Your task to perform on an android device: Open Google Maps and go to "Timeline" Image 0: 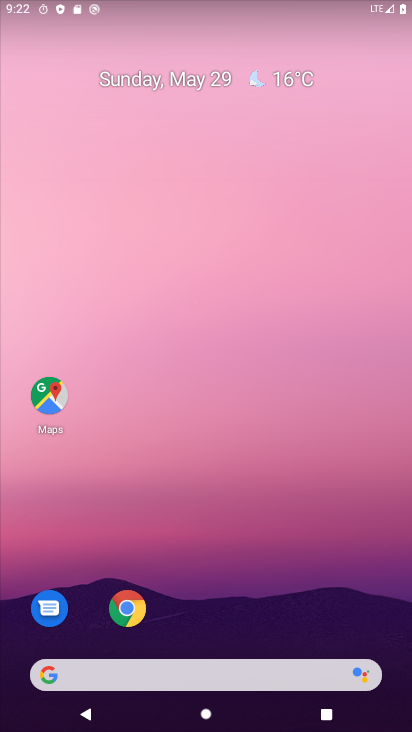
Step 0: click (46, 400)
Your task to perform on an android device: Open Google Maps and go to "Timeline" Image 1: 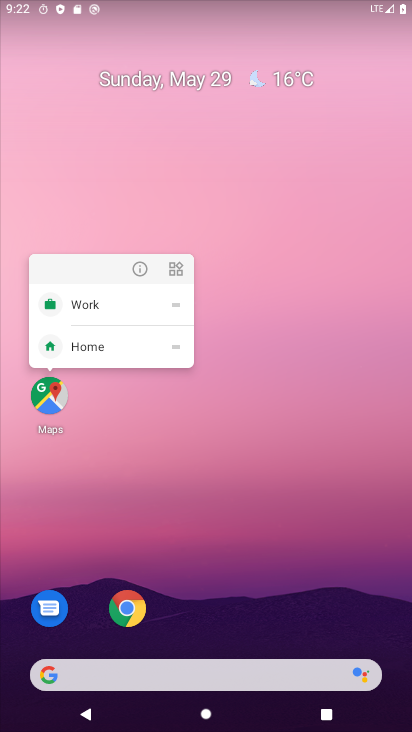
Step 1: click (49, 405)
Your task to perform on an android device: Open Google Maps and go to "Timeline" Image 2: 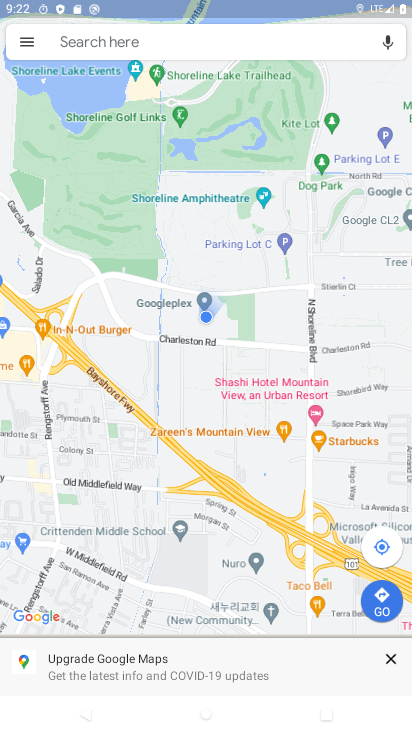
Step 2: click (29, 43)
Your task to perform on an android device: Open Google Maps and go to "Timeline" Image 3: 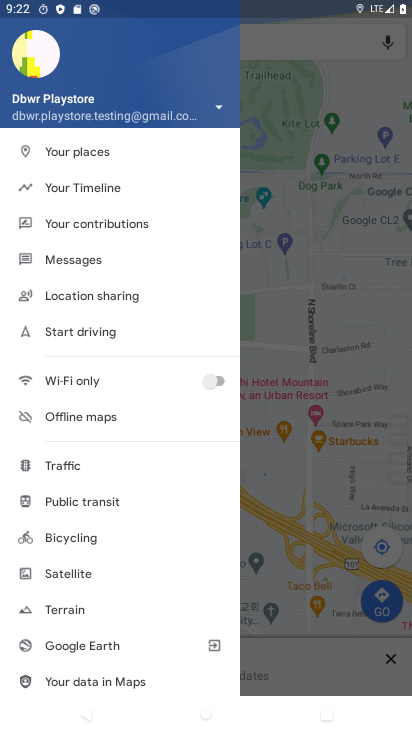
Step 3: click (75, 178)
Your task to perform on an android device: Open Google Maps and go to "Timeline" Image 4: 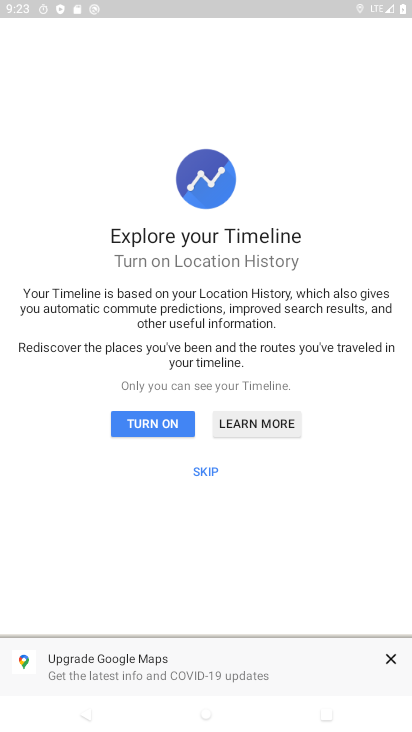
Step 4: click (203, 468)
Your task to perform on an android device: Open Google Maps and go to "Timeline" Image 5: 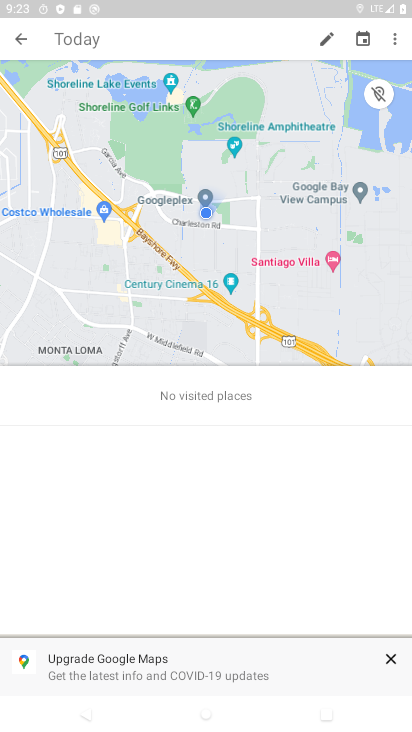
Step 5: task complete